Your task to perform on an android device: Show the shopping cart on costco.com. Search for "apple airpods pro" on costco.com, select the first entry, and add it to the cart. Image 0: 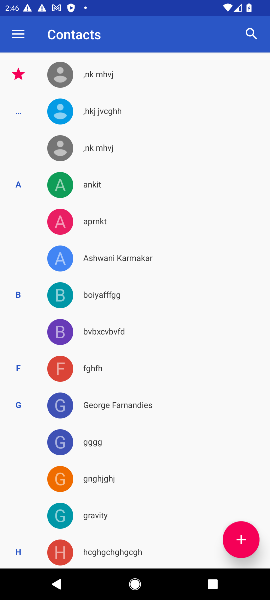
Step 0: press home button
Your task to perform on an android device: Show the shopping cart on costco.com. Search for "apple airpods pro" on costco.com, select the first entry, and add it to the cart. Image 1: 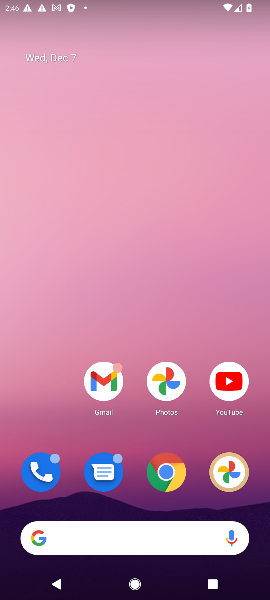
Step 1: drag from (144, 537) to (148, 132)
Your task to perform on an android device: Show the shopping cart on costco.com. Search for "apple airpods pro" on costco.com, select the first entry, and add it to the cart. Image 2: 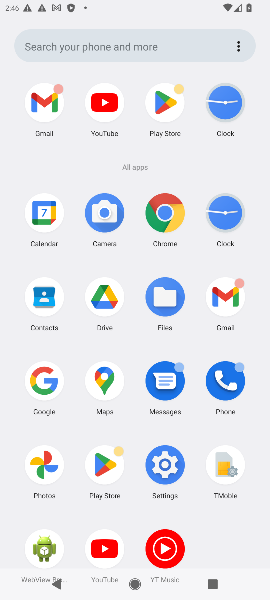
Step 2: click (41, 381)
Your task to perform on an android device: Show the shopping cart on costco.com. Search for "apple airpods pro" on costco.com, select the first entry, and add it to the cart. Image 3: 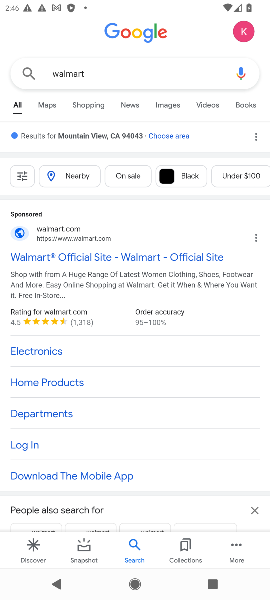
Step 3: click (54, 72)
Your task to perform on an android device: Show the shopping cart on costco.com. Search for "apple airpods pro" on costco.com, select the first entry, and add it to the cart. Image 4: 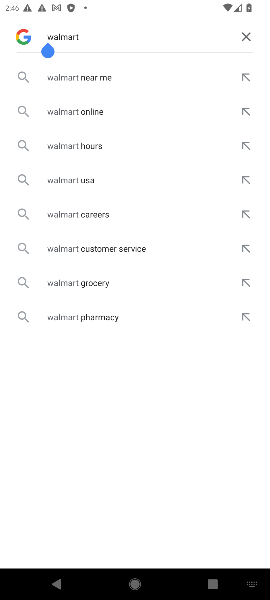
Step 4: click (248, 38)
Your task to perform on an android device: Show the shopping cart on costco.com. Search for "apple airpods pro" on costco.com, select the first entry, and add it to the cart. Image 5: 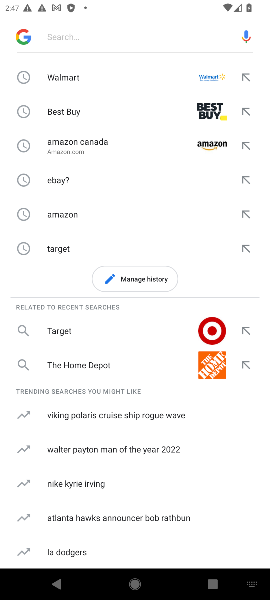
Step 5: type "costco"
Your task to perform on an android device: Show the shopping cart on costco.com. Search for "apple airpods pro" on costco.com, select the first entry, and add it to the cart. Image 6: 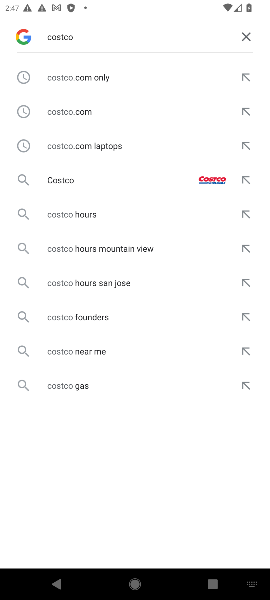
Step 6: click (83, 111)
Your task to perform on an android device: Show the shopping cart on costco.com. Search for "apple airpods pro" on costco.com, select the first entry, and add it to the cart. Image 7: 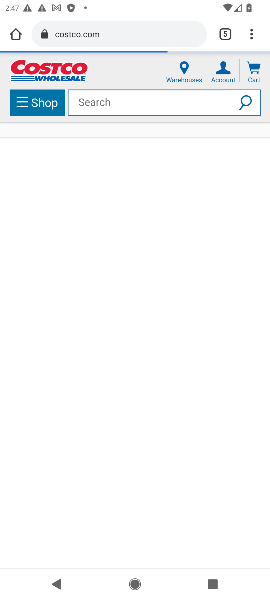
Step 7: click (157, 98)
Your task to perform on an android device: Show the shopping cart on costco.com. Search for "apple airpods pro" on costco.com, select the first entry, and add it to the cart. Image 8: 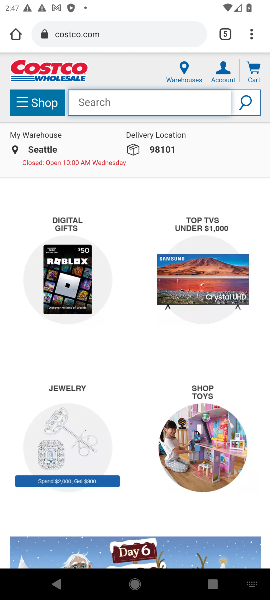
Step 8: type "apple airpods pro"
Your task to perform on an android device: Show the shopping cart on costco.com. Search for "apple airpods pro" on costco.com, select the first entry, and add it to the cart. Image 9: 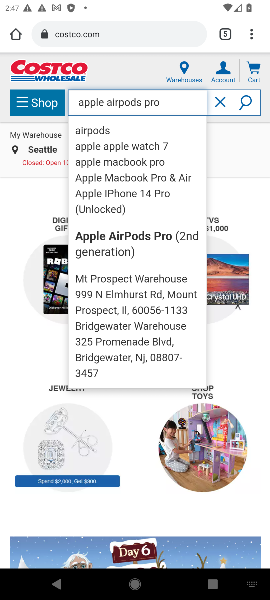
Step 9: click (241, 103)
Your task to perform on an android device: Show the shopping cart on costco.com. Search for "apple airpods pro" on costco.com, select the first entry, and add it to the cart. Image 10: 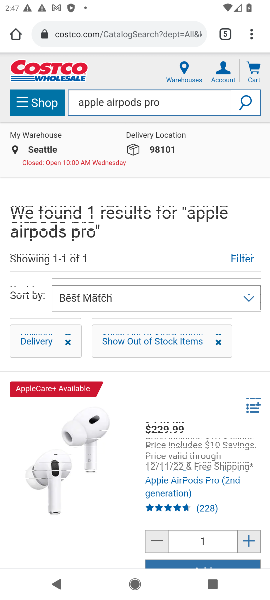
Step 10: drag from (123, 509) to (92, 270)
Your task to perform on an android device: Show the shopping cart on costco.com. Search for "apple airpods pro" on costco.com, select the first entry, and add it to the cart. Image 11: 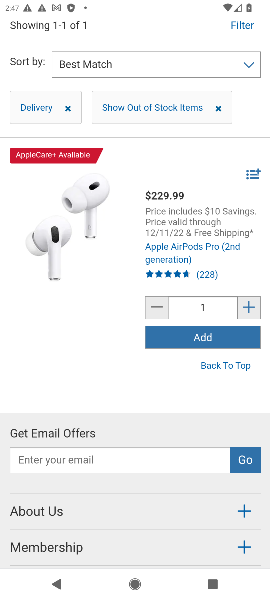
Step 11: click (175, 340)
Your task to perform on an android device: Show the shopping cart on costco.com. Search for "apple airpods pro" on costco.com, select the first entry, and add it to the cart. Image 12: 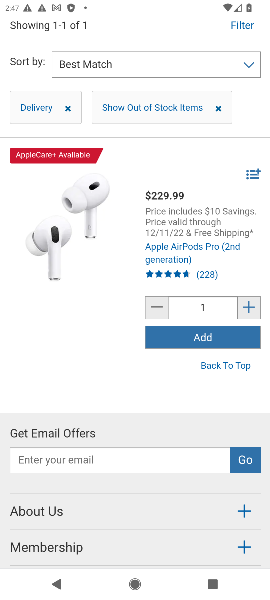
Step 12: task complete